Your task to perform on an android device: Show me recent news Image 0: 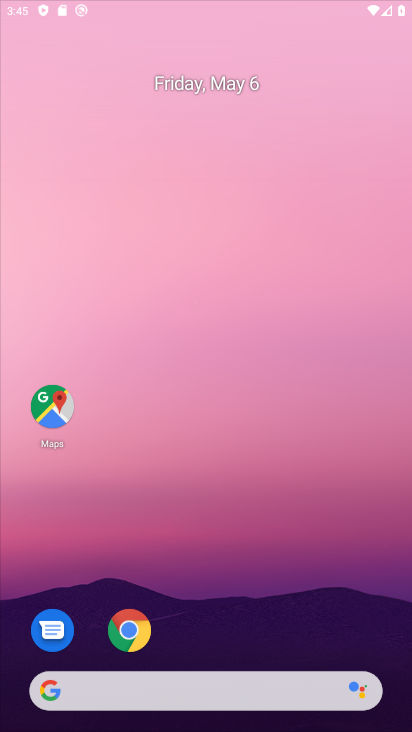
Step 0: drag from (237, 631) to (352, 80)
Your task to perform on an android device: Show me recent news Image 1: 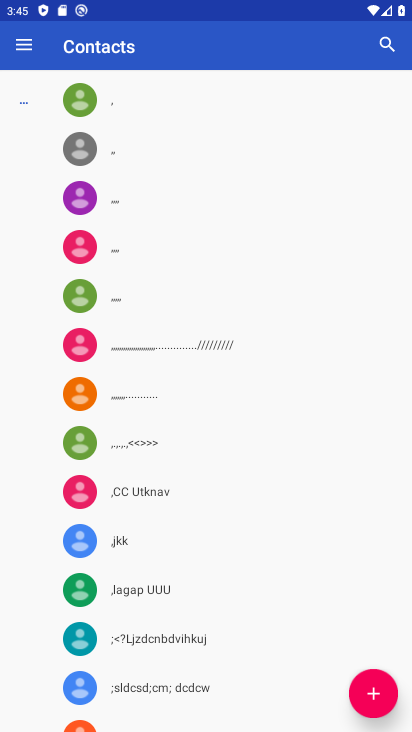
Step 1: press back button
Your task to perform on an android device: Show me recent news Image 2: 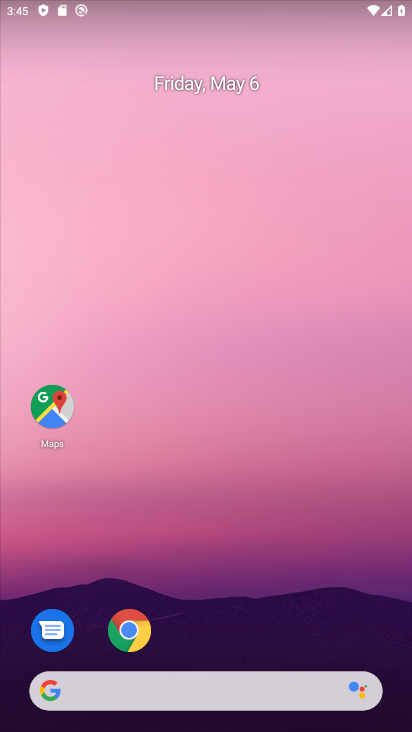
Step 2: drag from (181, 545) to (266, 115)
Your task to perform on an android device: Show me recent news Image 3: 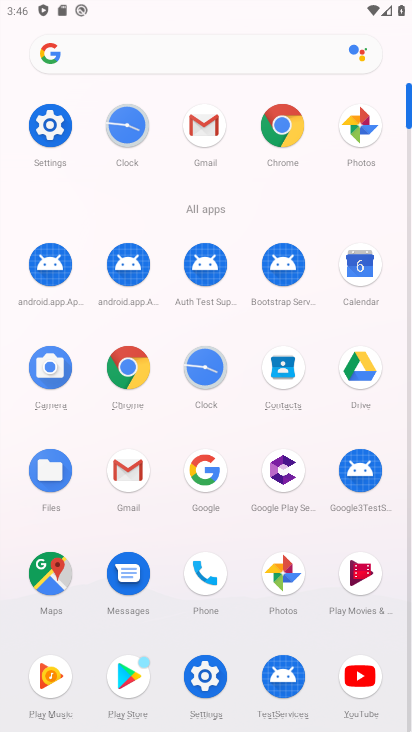
Step 3: click (281, 122)
Your task to perform on an android device: Show me recent news Image 4: 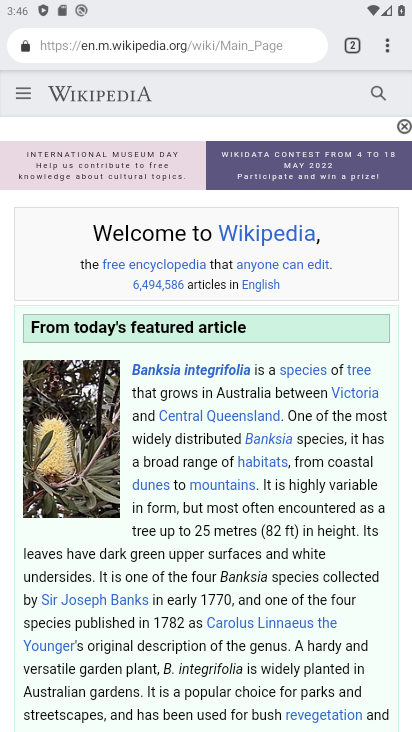
Step 4: click (345, 41)
Your task to perform on an android device: Show me recent news Image 5: 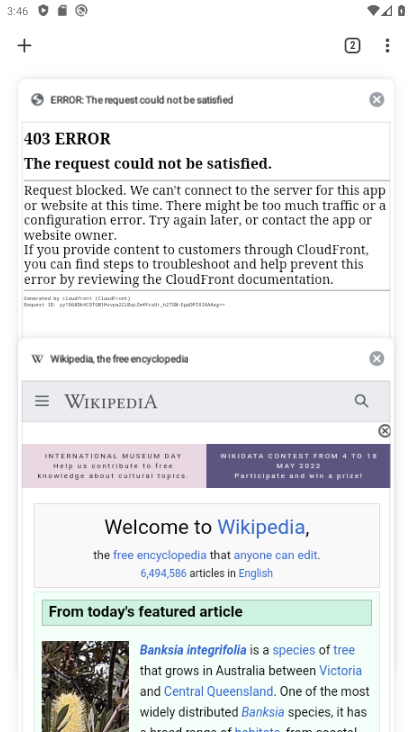
Step 5: click (23, 47)
Your task to perform on an android device: Show me recent news Image 6: 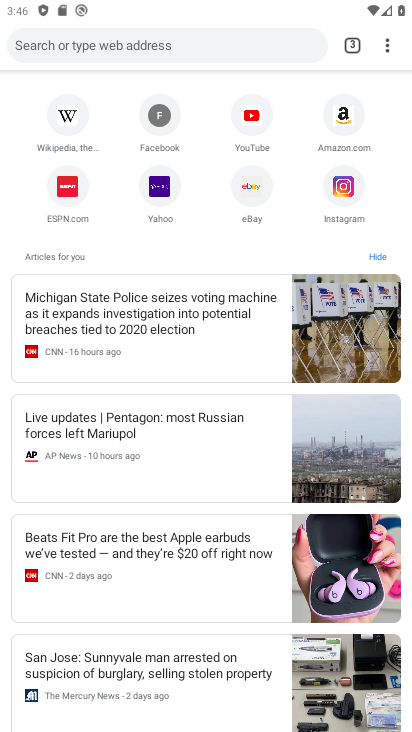
Step 6: click (102, 45)
Your task to perform on an android device: Show me recent news Image 7: 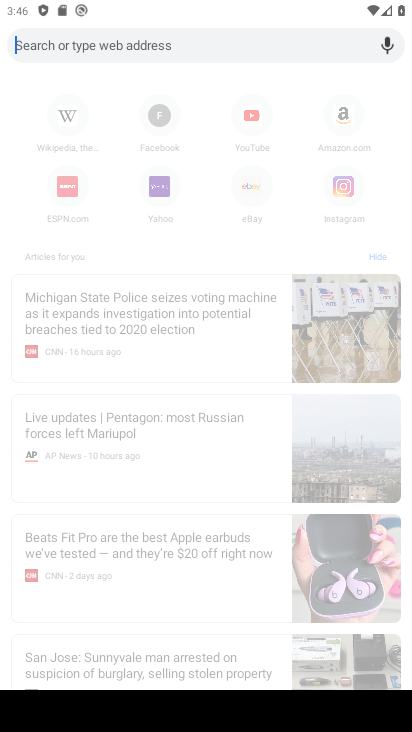
Step 7: type "recent news"
Your task to perform on an android device: Show me recent news Image 8: 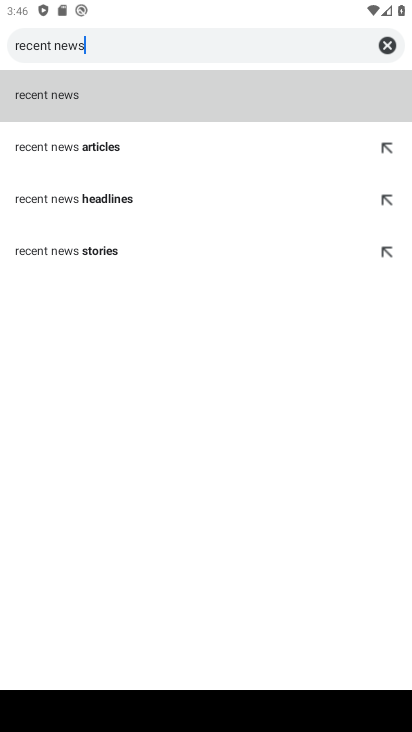
Step 8: click (116, 96)
Your task to perform on an android device: Show me recent news Image 9: 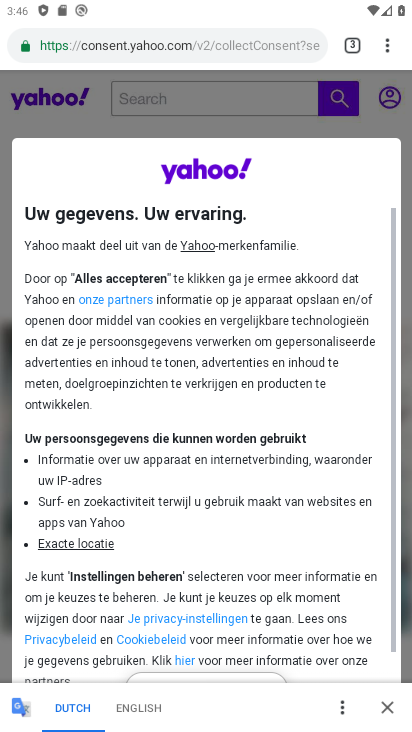
Step 9: click (355, 41)
Your task to perform on an android device: Show me recent news Image 10: 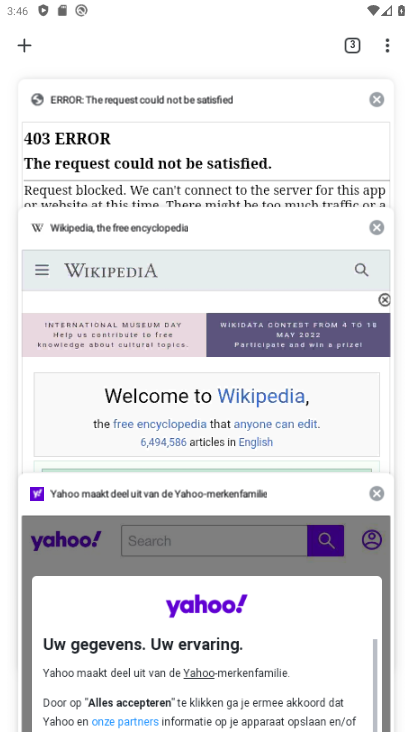
Step 10: click (25, 38)
Your task to perform on an android device: Show me recent news Image 11: 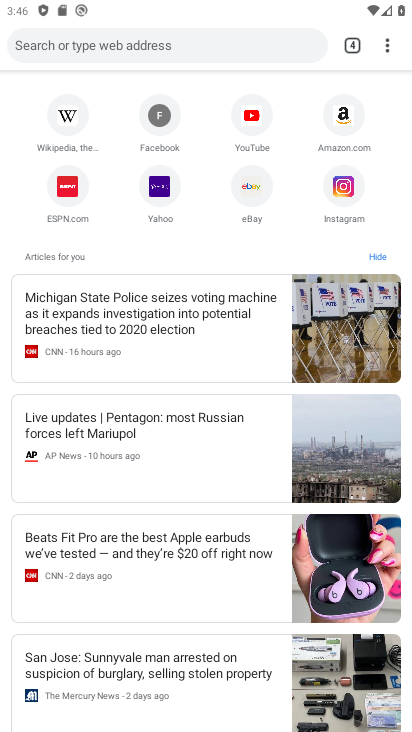
Step 11: click (106, 53)
Your task to perform on an android device: Show me recent news Image 12: 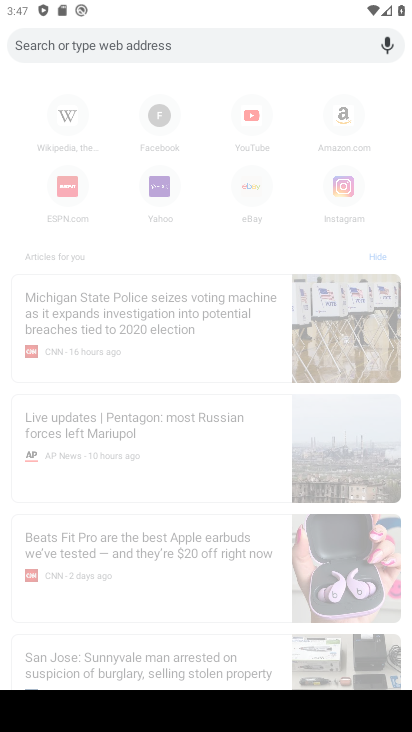
Step 12: task complete